Your task to perform on an android device: set the stopwatch Image 0: 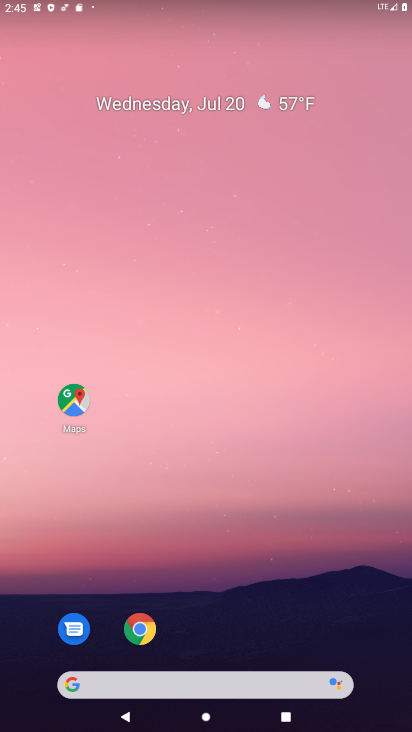
Step 0: drag from (189, 686) to (157, 353)
Your task to perform on an android device: set the stopwatch Image 1: 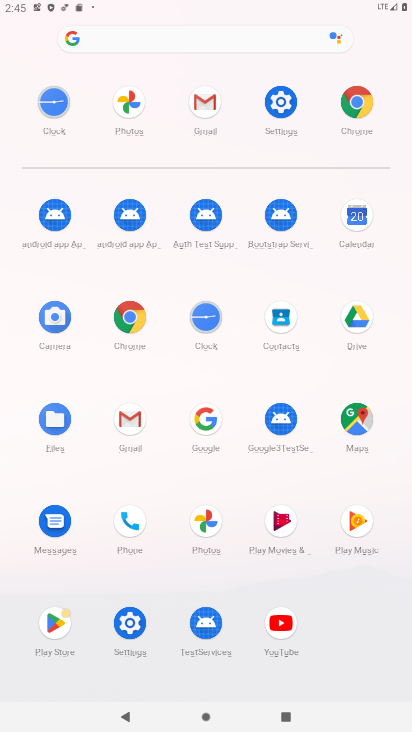
Step 1: click (214, 317)
Your task to perform on an android device: set the stopwatch Image 2: 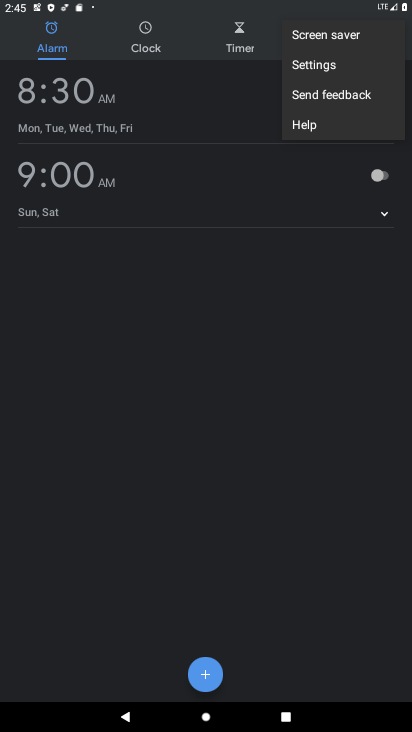
Step 2: click (285, 360)
Your task to perform on an android device: set the stopwatch Image 3: 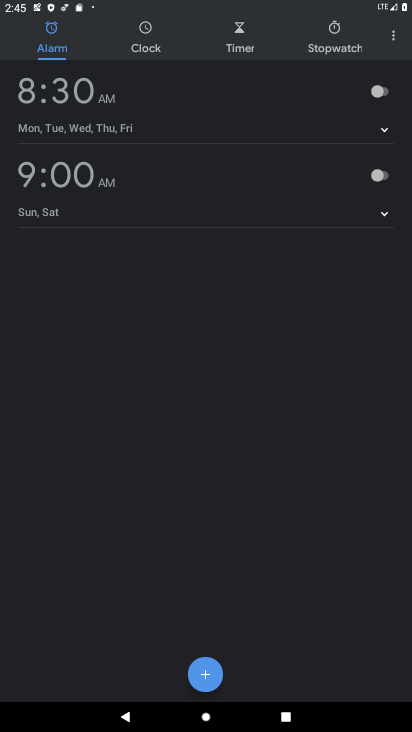
Step 3: click (320, 44)
Your task to perform on an android device: set the stopwatch Image 4: 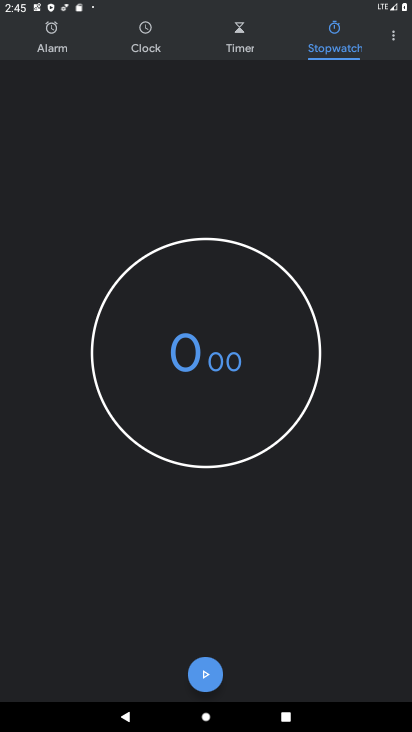
Step 4: click (214, 382)
Your task to perform on an android device: set the stopwatch Image 5: 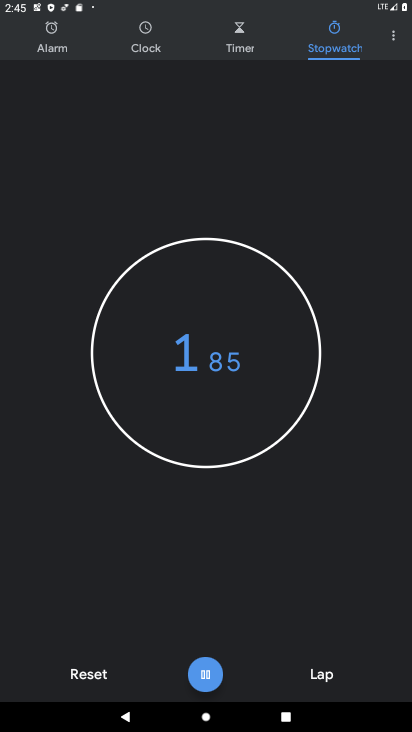
Step 5: click (212, 674)
Your task to perform on an android device: set the stopwatch Image 6: 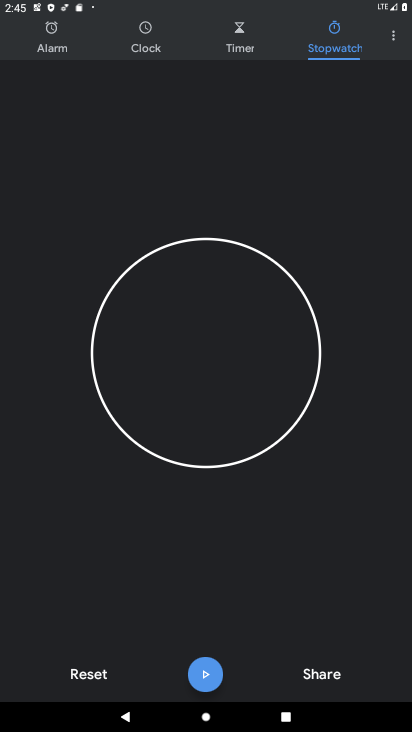
Step 6: task complete